Your task to perform on an android device: Open Yahoo.com Image 0: 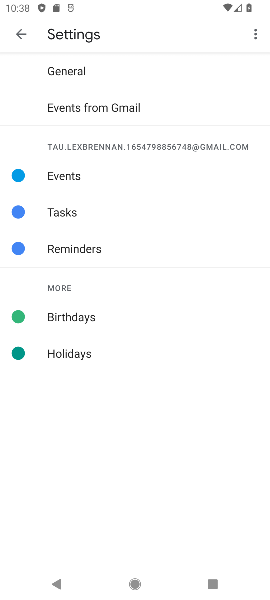
Step 0: click (18, 38)
Your task to perform on an android device: Open Yahoo.com Image 1: 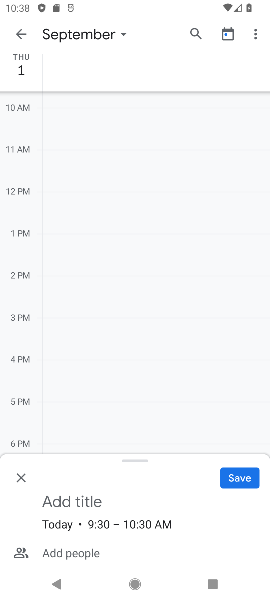
Step 1: click (19, 29)
Your task to perform on an android device: Open Yahoo.com Image 2: 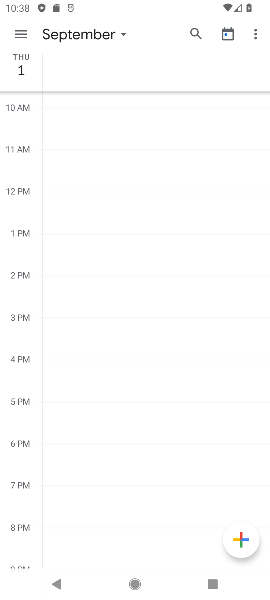
Step 2: click (17, 26)
Your task to perform on an android device: Open Yahoo.com Image 3: 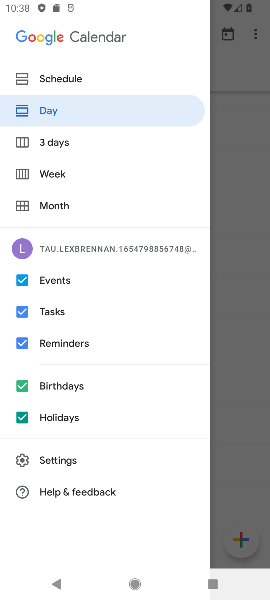
Step 3: click (231, 277)
Your task to perform on an android device: Open Yahoo.com Image 4: 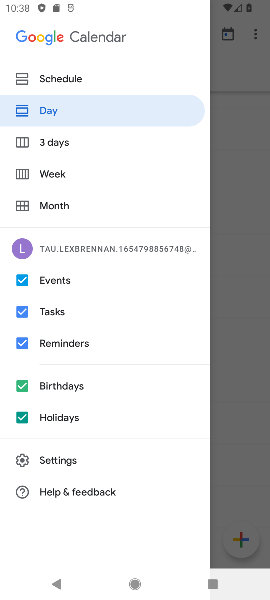
Step 4: click (231, 274)
Your task to perform on an android device: Open Yahoo.com Image 5: 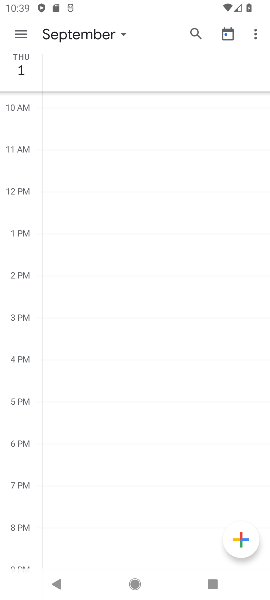
Step 5: click (20, 32)
Your task to perform on an android device: Open Yahoo.com Image 6: 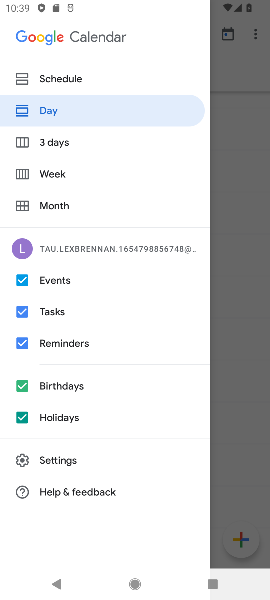
Step 6: press back button
Your task to perform on an android device: Open Yahoo.com Image 7: 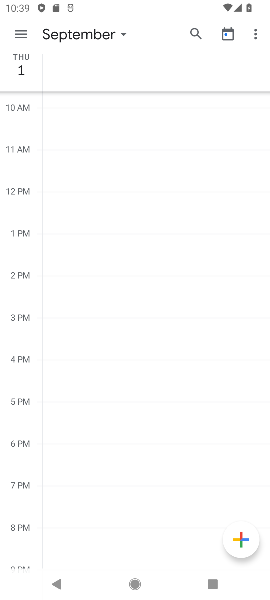
Step 7: press home button
Your task to perform on an android device: Open Yahoo.com Image 8: 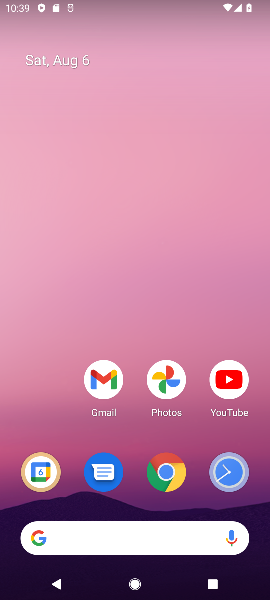
Step 8: drag from (130, 533) to (63, 102)
Your task to perform on an android device: Open Yahoo.com Image 9: 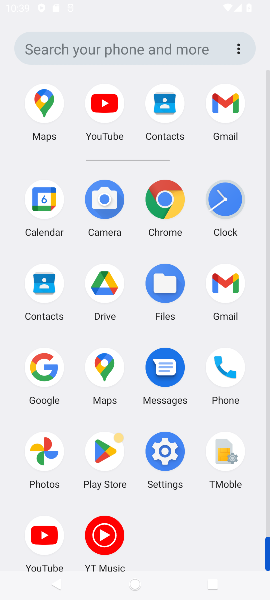
Step 9: drag from (152, 368) to (90, 81)
Your task to perform on an android device: Open Yahoo.com Image 10: 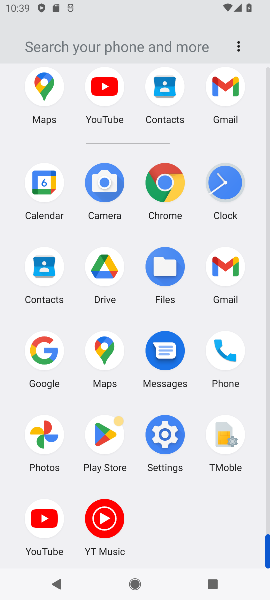
Step 10: click (155, 178)
Your task to perform on an android device: Open Yahoo.com Image 11: 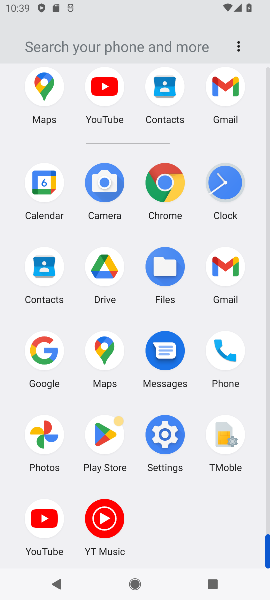
Step 11: click (155, 185)
Your task to perform on an android device: Open Yahoo.com Image 12: 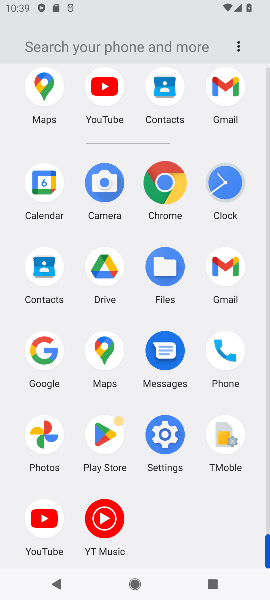
Step 12: click (154, 187)
Your task to perform on an android device: Open Yahoo.com Image 13: 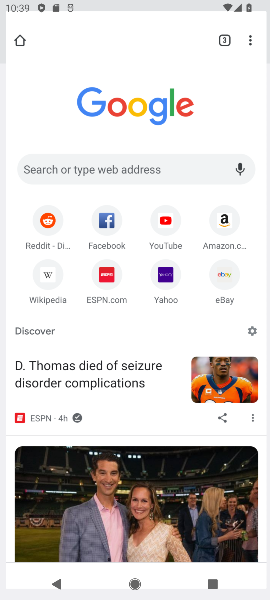
Step 13: click (154, 187)
Your task to perform on an android device: Open Yahoo.com Image 14: 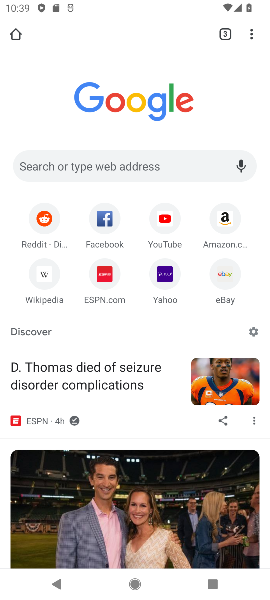
Step 14: click (169, 286)
Your task to perform on an android device: Open Yahoo.com Image 15: 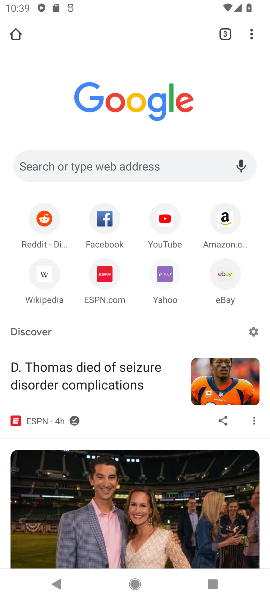
Step 15: click (167, 278)
Your task to perform on an android device: Open Yahoo.com Image 16: 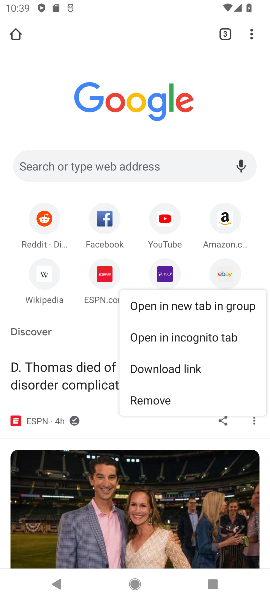
Step 16: click (171, 276)
Your task to perform on an android device: Open Yahoo.com Image 17: 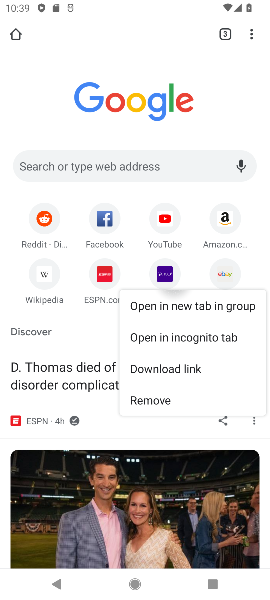
Step 17: click (171, 276)
Your task to perform on an android device: Open Yahoo.com Image 18: 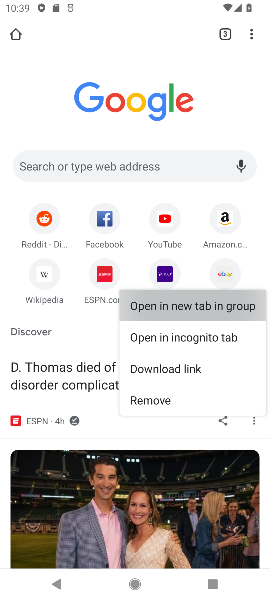
Step 18: click (164, 269)
Your task to perform on an android device: Open Yahoo.com Image 19: 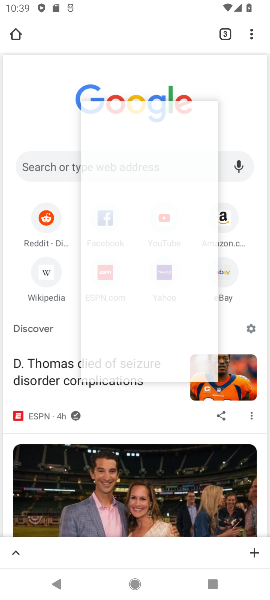
Step 19: click (162, 265)
Your task to perform on an android device: Open Yahoo.com Image 20: 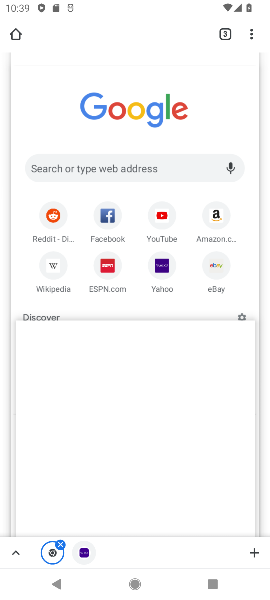
Step 20: click (162, 265)
Your task to perform on an android device: Open Yahoo.com Image 21: 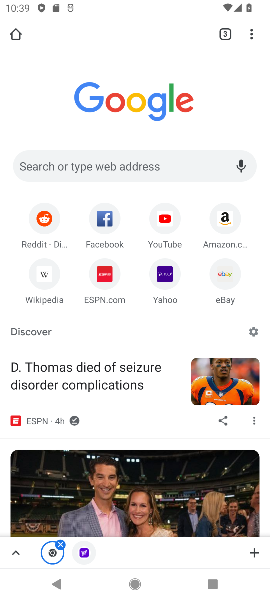
Step 21: drag from (166, 289) to (131, 282)
Your task to perform on an android device: Open Yahoo.com Image 22: 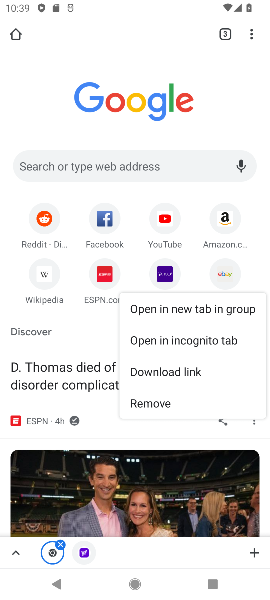
Step 22: click (169, 285)
Your task to perform on an android device: Open Yahoo.com Image 23: 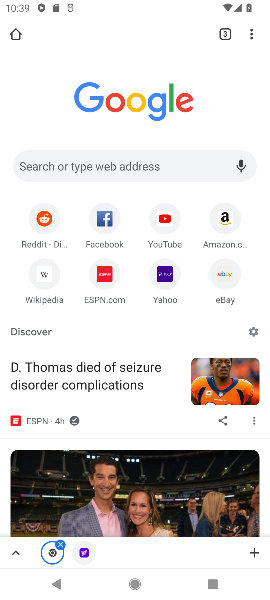
Step 23: click (159, 285)
Your task to perform on an android device: Open Yahoo.com Image 24: 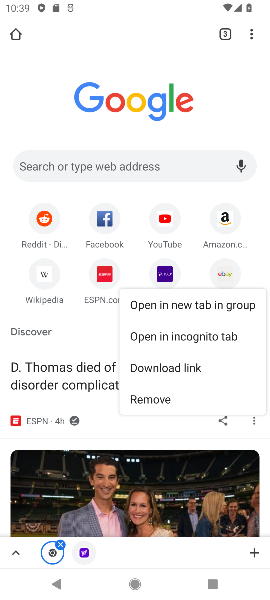
Step 24: click (153, 278)
Your task to perform on an android device: Open Yahoo.com Image 25: 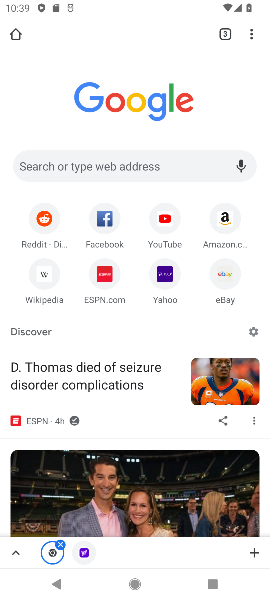
Step 25: click (153, 257)
Your task to perform on an android device: Open Yahoo.com Image 26: 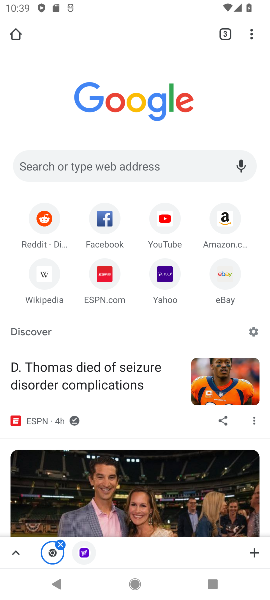
Step 26: click (158, 265)
Your task to perform on an android device: Open Yahoo.com Image 27: 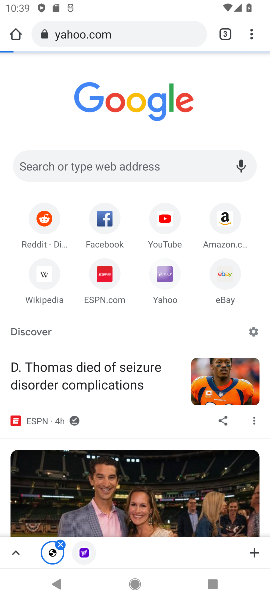
Step 27: click (163, 270)
Your task to perform on an android device: Open Yahoo.com Image 28: 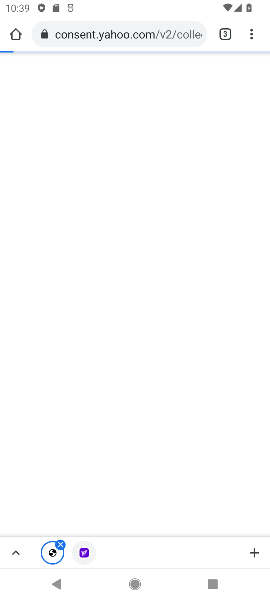
Step 28: click (194, 254)
Your task to perform on an android device: Open Yahoo.com Image 29: 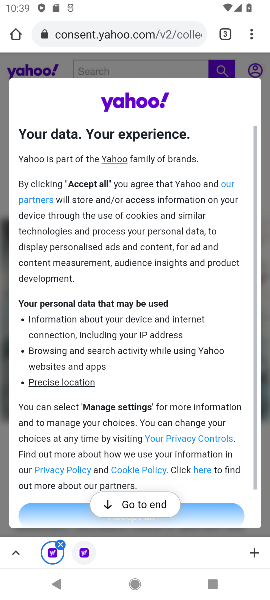
Step 29: task complete